Your task to perform on an android device: Show me productivity apps on the Play Store Image 0: 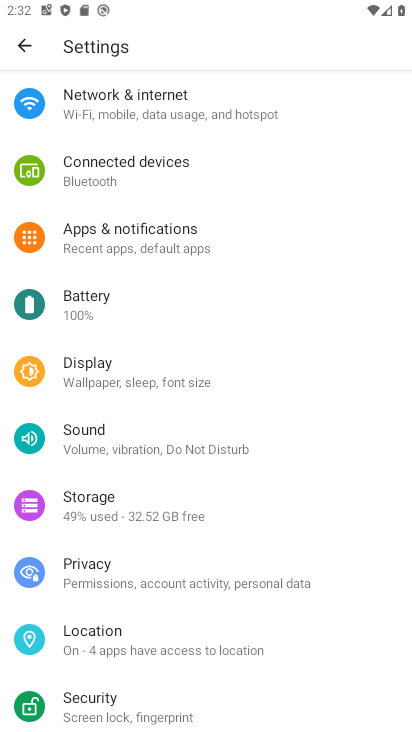
Step 0: press home button
Your task to perform on an android device: Show me productivity apps on the Play Store Image 1: 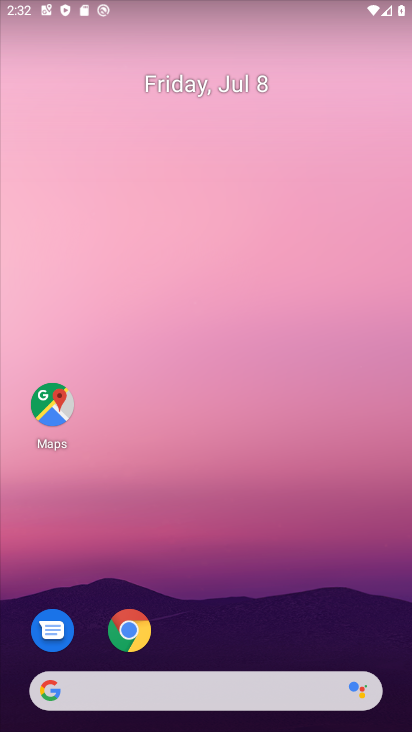
Step 1: drag from (251, 660) to (225, 136)
Your task to perform on an android device: Show me productivity apps on the Play Store Image 2: 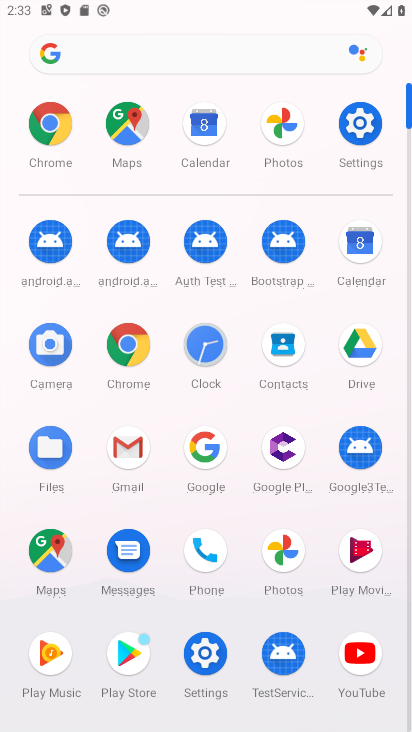
Step 2: click (116, 676)
Your task to perform on an android device: Show me productivity apps on the Play Store Image 3: 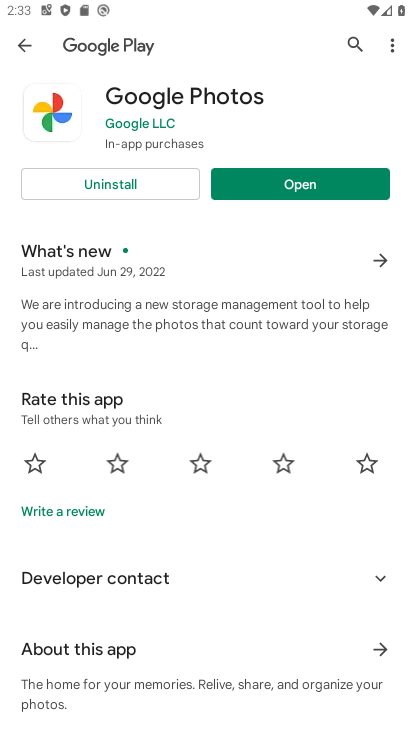
Step 3: click (26, 51)
Your task to perform on an android device: Show me productivity apps on the Play Store Image 4: 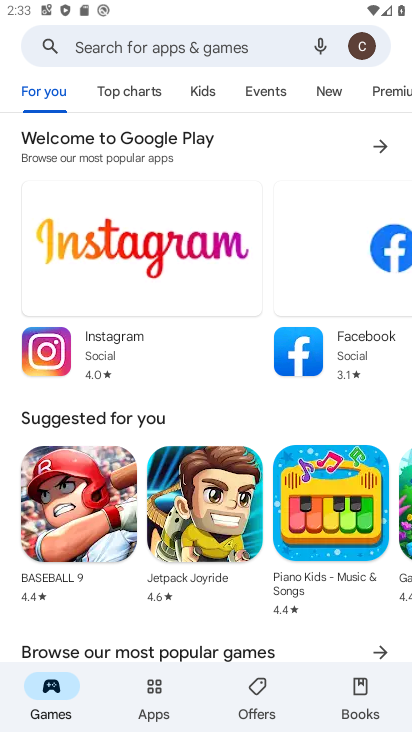
Step 4: click (168, 699)
Your task to perform on an android device: Show me productivity apps on the Play Store Image 5: 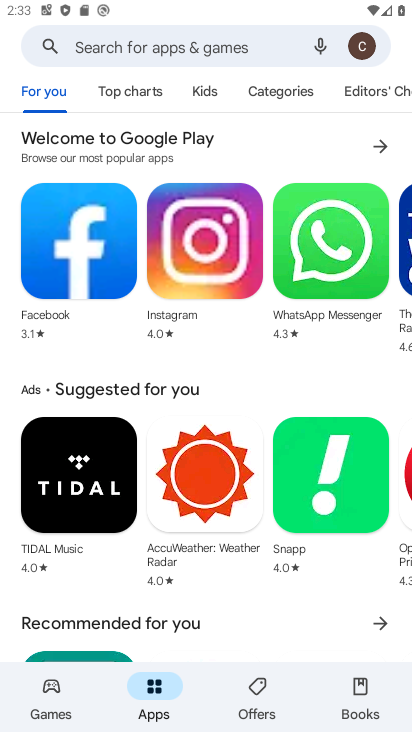
Step 5: click (147, 106)
Your task to perform on an android device: Show me productivity apps on the Play Store Image 6: 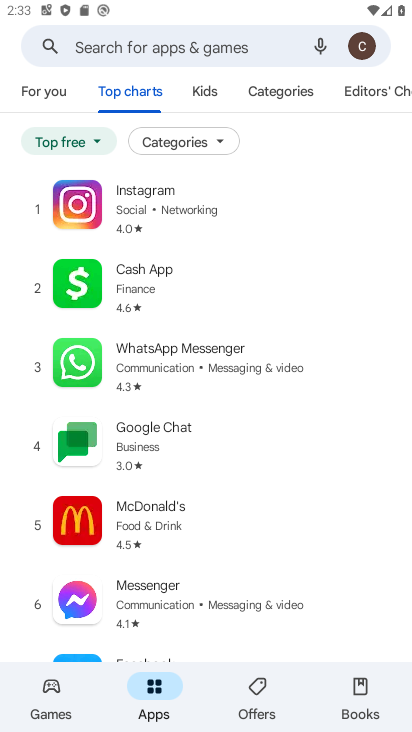
Step 6: click (209, 141)
Your task to perform on an android device: Show me productivity apps on the Play Store Image 7: 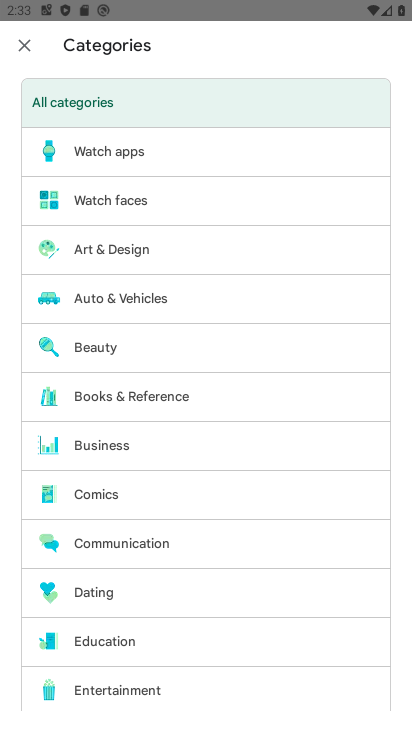
Step 7: drag from (191, 609) to (160, 149)
Your task to perform on an android device: Show me productivity apps on the Play Store Image 8: 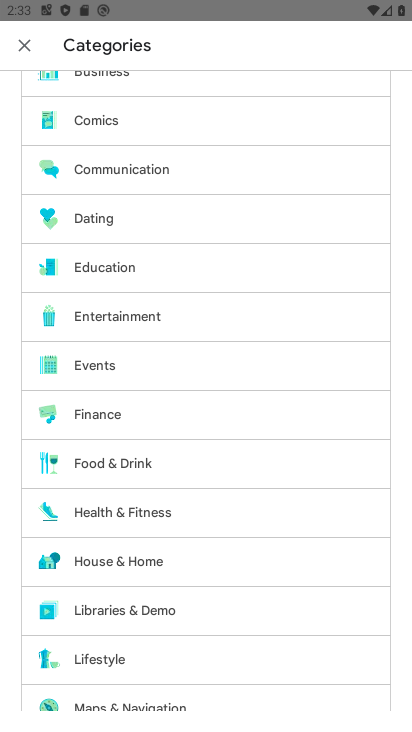
Step 8: drag from (181, 604) to (163, 194)
Your task to perform on an android device: Show me productivity apps on the Play Store Image 9: 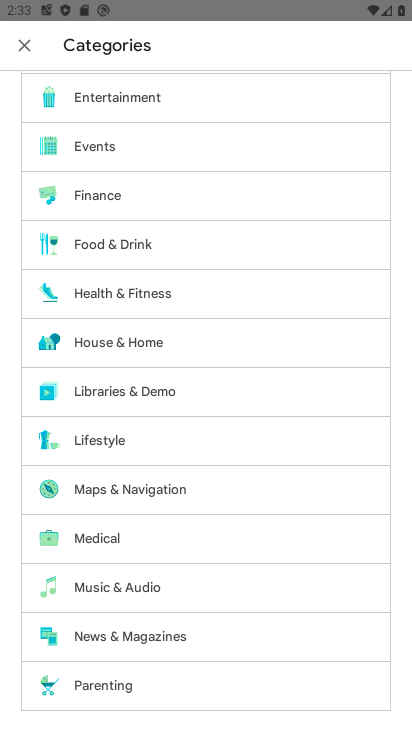
Step 9: drag from (127, 656) to (112, 309)
Your task to perform on an android device: Show me productivity apps on the Play Store Image 10: 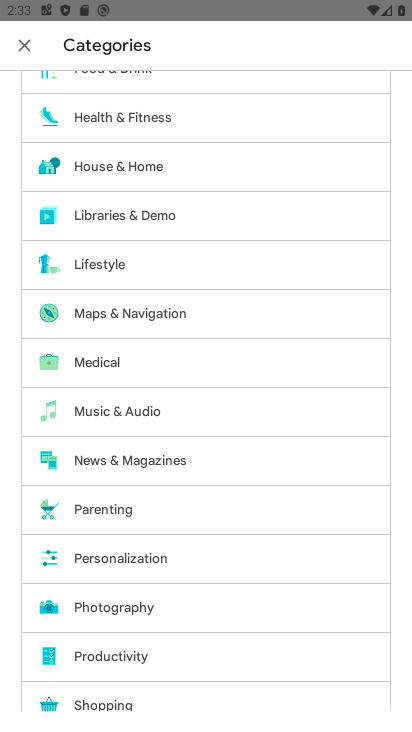
Step 10: click (125, 645)
Your task to perform on an android device: Show me productivity apps on the Play Store Image 11: 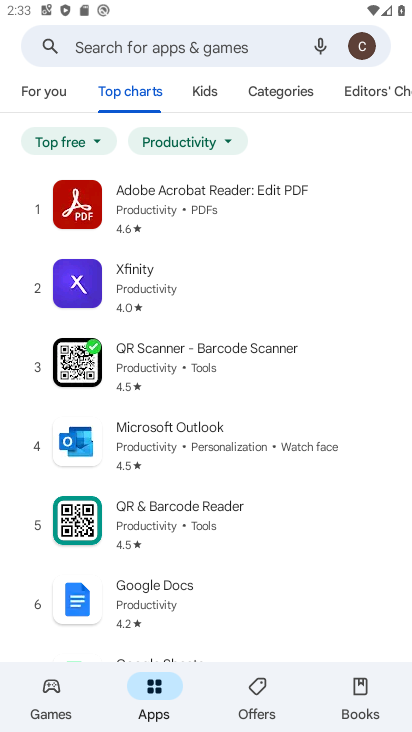
Step 11: task complete